Your task to perform on an android device: turn off notifications in google photos Image 0: 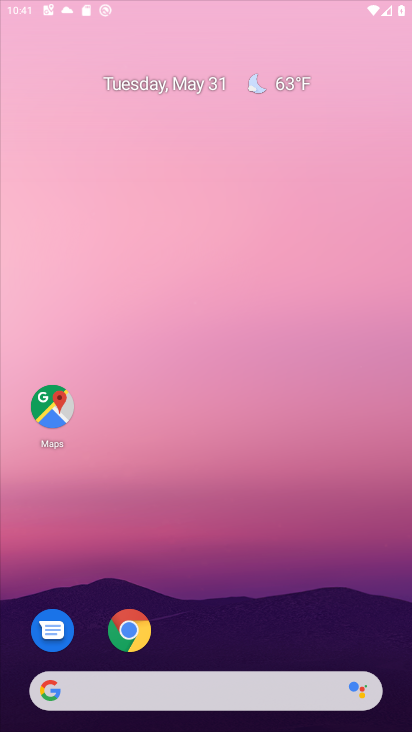
Step 0: drag from (248, 569) to (228, 75)
Your task to perform on an android device: turn off notifications in google photos Image 1: 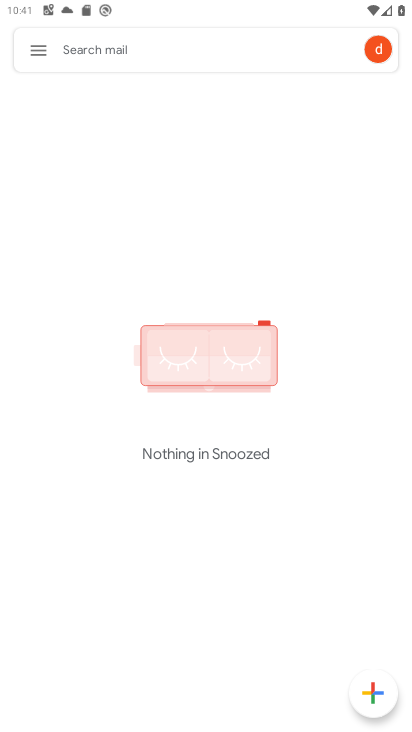
Step 1: click (40, 45)
Your task to perform on an android device: turn off notifications in google photos Image 2: 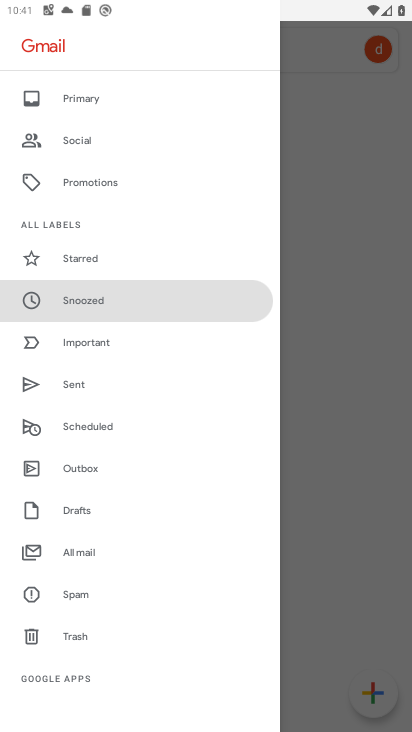
Step 2: drag from (96, 609) to (149, 212)
Your task to perform on an android device: turn off notifications in google photos Image 3: 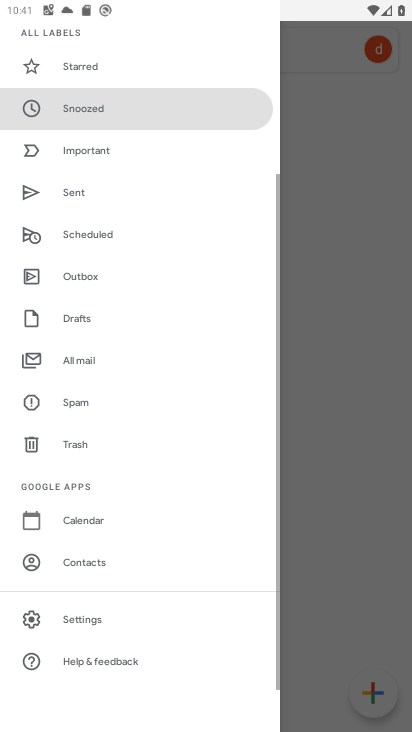
Step 3: click (97, 618)
Your task to perform on an android device: turn off notifications in google photos Image 4: 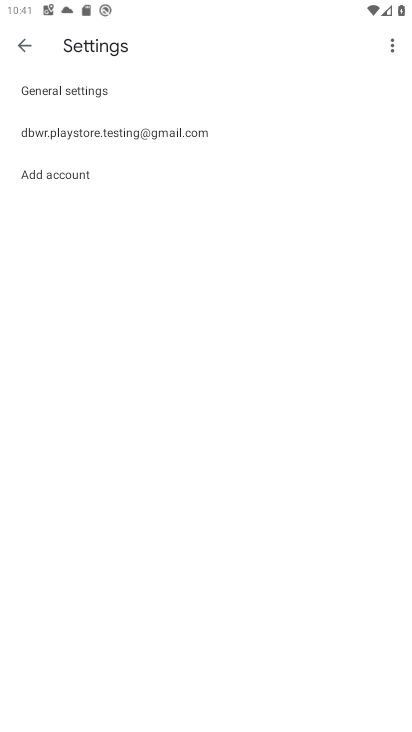
Step 4: click (172, 138)
Your task to perform on an android device: turn off notifications in google photos Image 5: 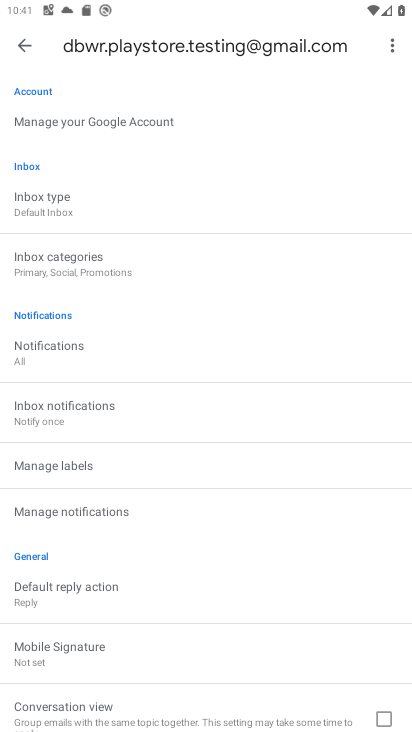
Step 5: click (119, 510)
Your task to perform on an android device: turn off notifications in google photos Image 6: 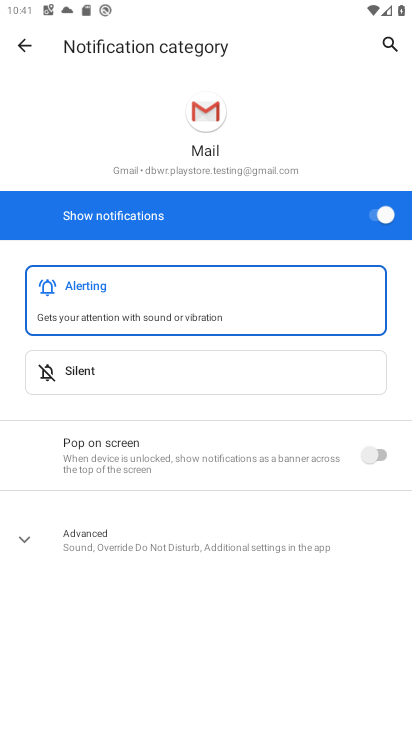
Step 6: click (381, 209)
Your task to perform on an android device: turn off notifications in google photos Image 7: 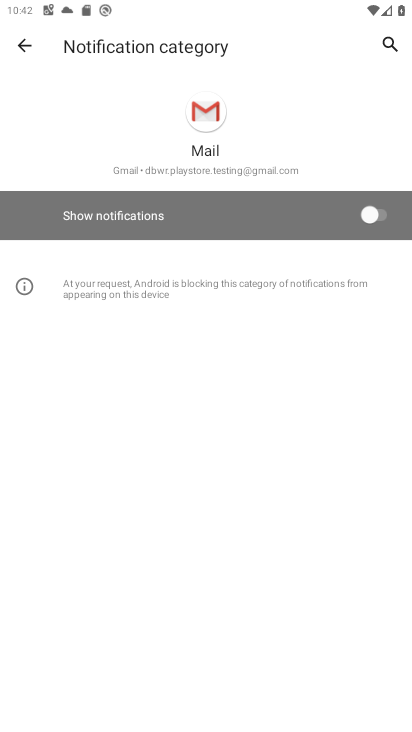
Step 7: press home button
Your task to perform on an android device: turn off notifications in google photos Image 8: 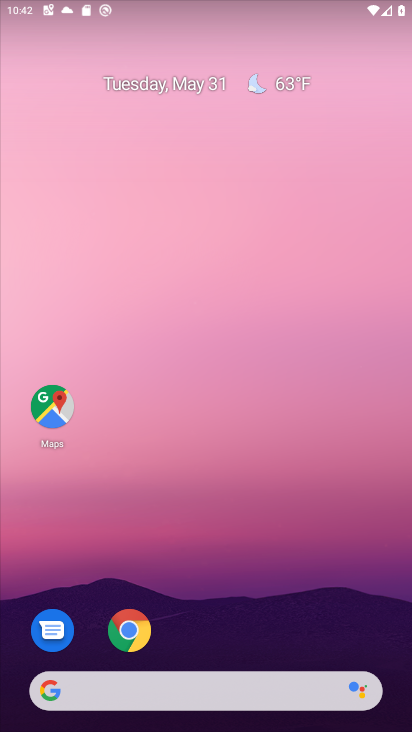
Step 8: drag from (274, 519) to (295, 60)
Your task to perform on an android device: turn off notifications in google photos Image 9: 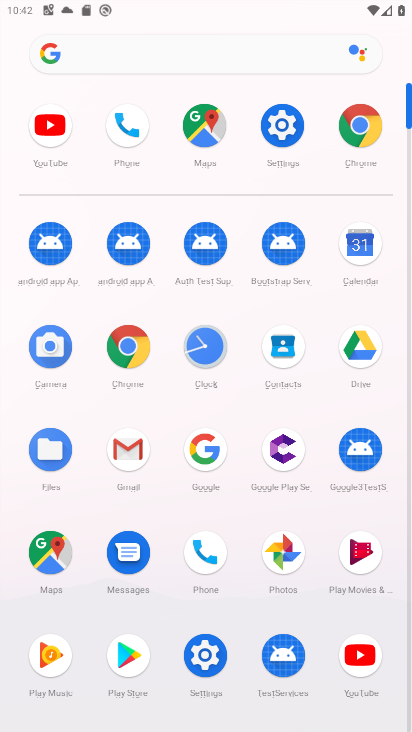
Step 9: click (288, 553)
Your task to perform on an android device: turn off notifications in google photos Image 10: 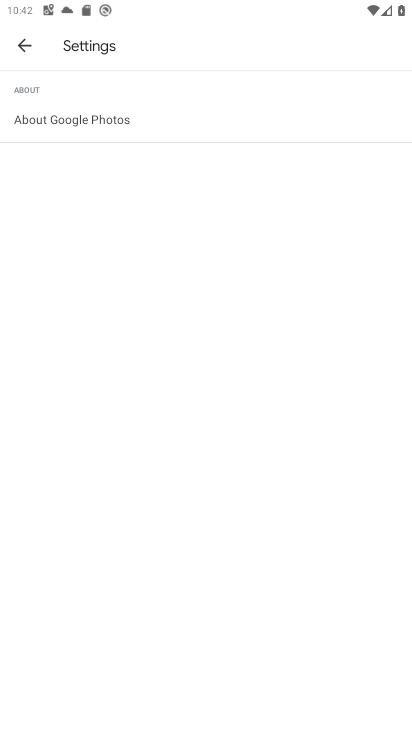
Step 10: click (27, 51)
Your task to perform on an android device: turn off notifications in google photos Image 11: 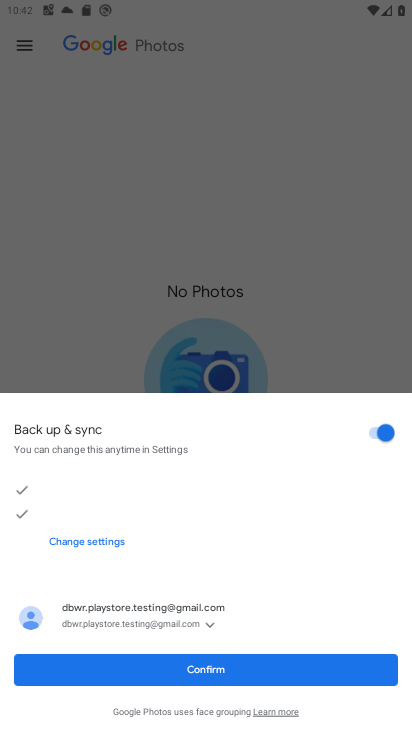
Step 11: click (29, 50)
Your task to perform on an android device: turn off notifications in google photos Image 12: 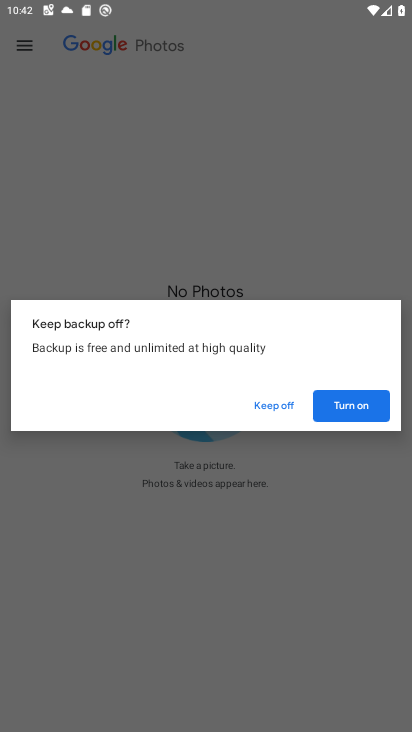
Step 12: drag from (335, 408) to (292, 480)
Your task to perform on an android device: turn off notifications in google photos Image 13: 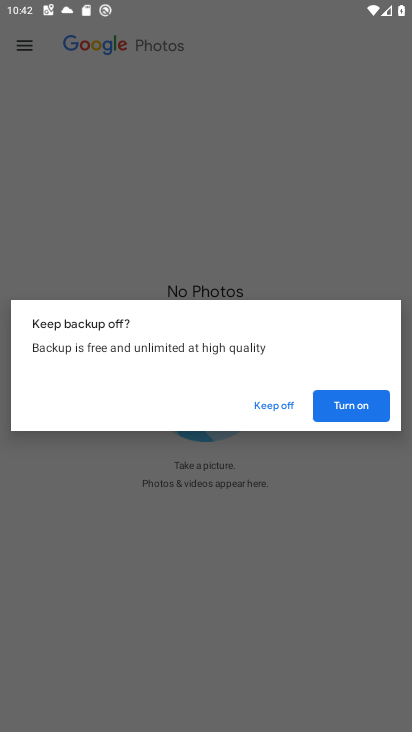
Step 13: click (340, 403)
Your task to perform on an android device: turn off notifications in google photos Image 14: 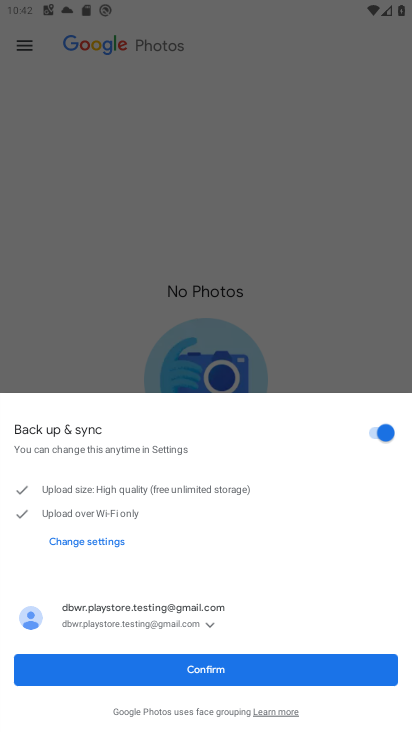
Step 14: click (211, 667)
Your task to perform on an android device: turn off notifications in google photos Image 15: 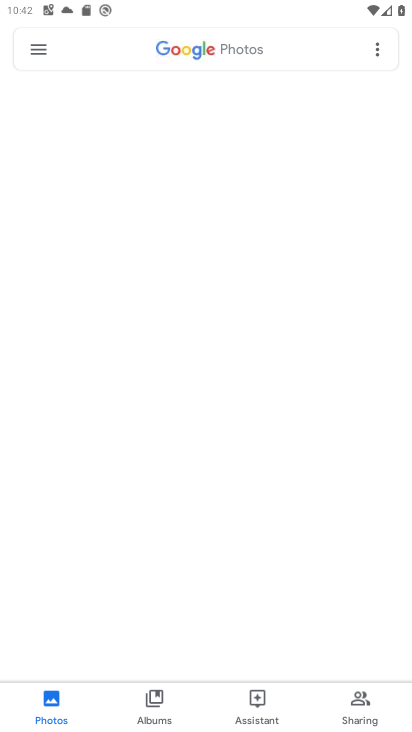
Step 15: click (27, 44)
Your task to perform on an android device: turn off notifications in google photos Image 16: 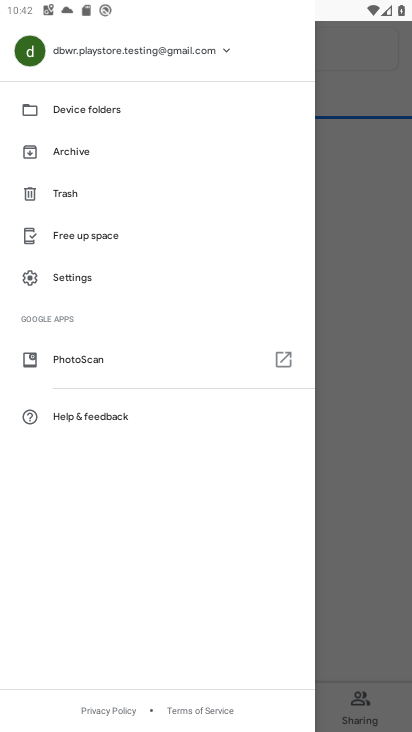
Step 16: click (85, 286)
Your task to perform on an android device: turn off notifications in google photos Image 17: 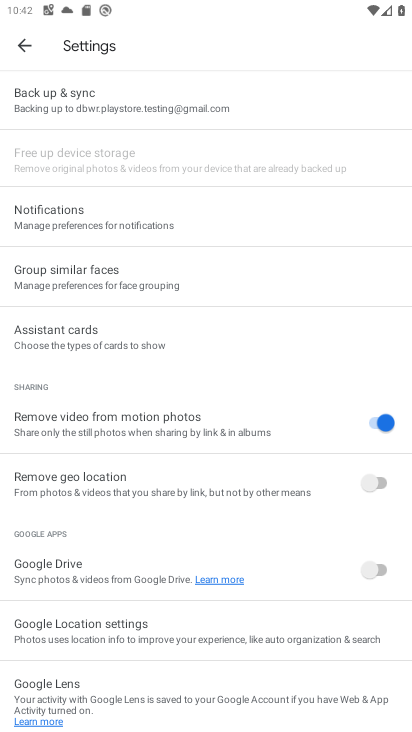
Step 17: click (134, 205)
Your task to perform on an android device: turn off notifications in google photos Image 18: 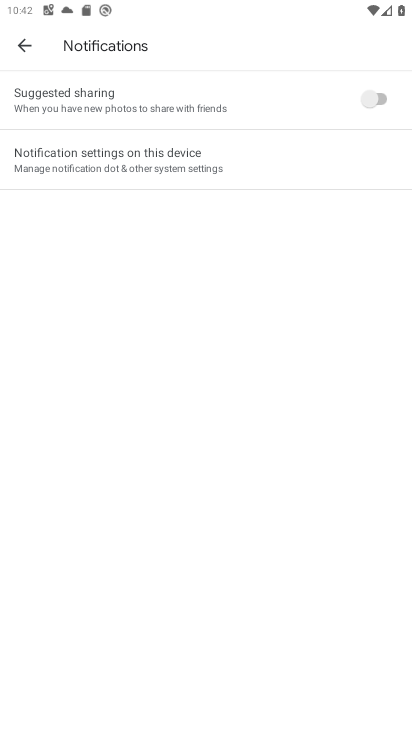
Step 18: click (213, 158)
Your task to perform on an android device: turn off notifications in google photos Image 19: 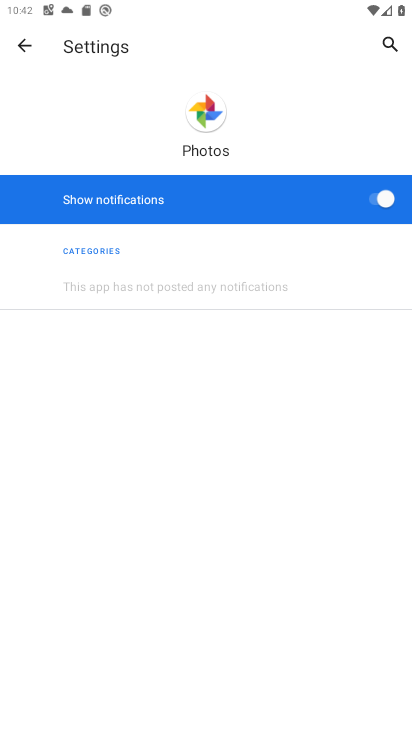
Step 19: click (395, 199)
Your task to perform on an android device: turn off notifications in google photos Image 20: 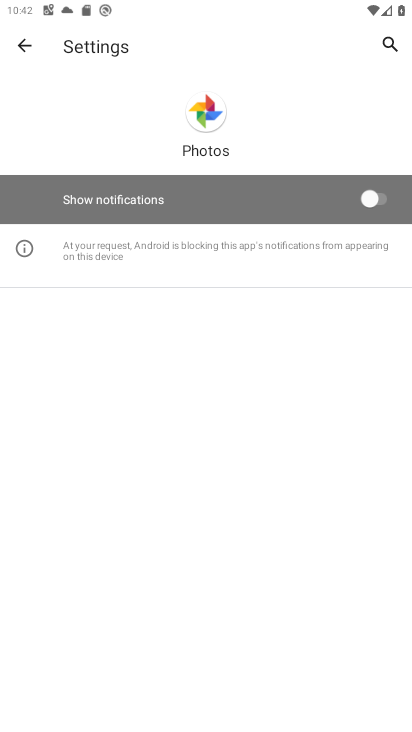
Step 20: task complete